Your task to perform on an android device: Search for sushi restaurants on Maps Image 0: 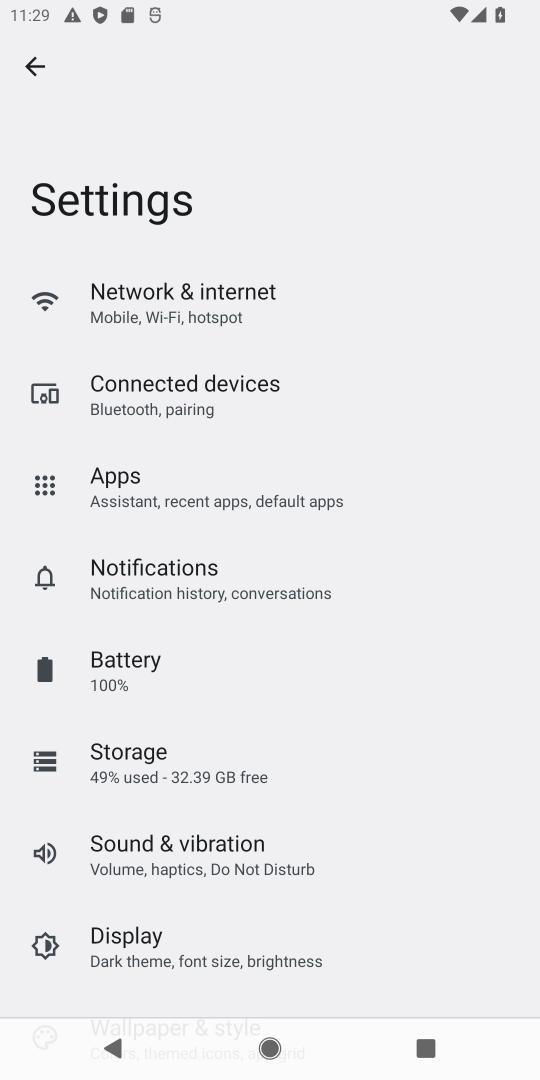
Step 0: press home button
Your task to perform on an android device: Search for sushi restaurants on Maps Image 1: 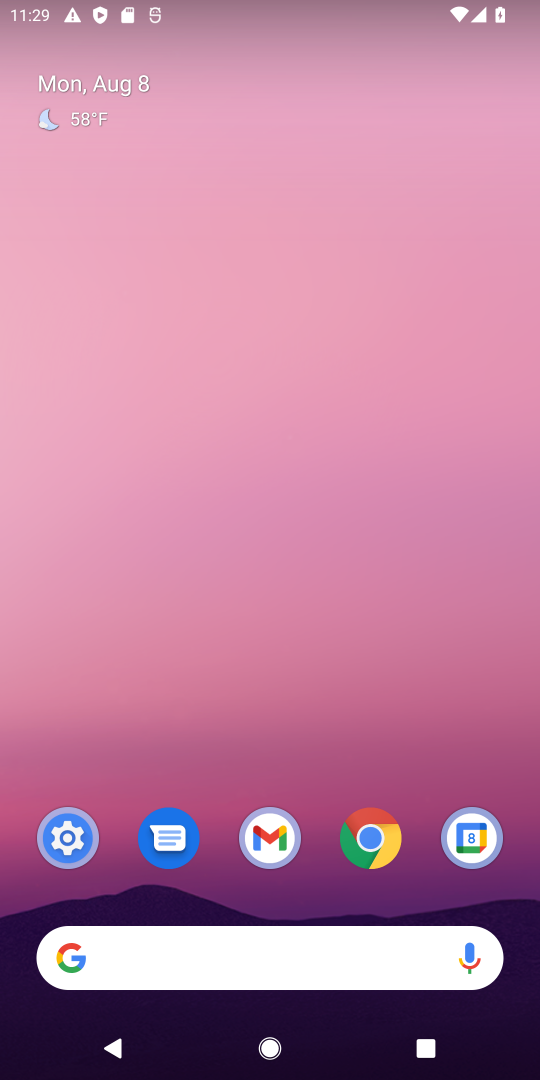
Step 1: drag from (325, 546) to (312, 18)
Your task to perform on an android device: Search for sushi restaurants on Maps Image 2: 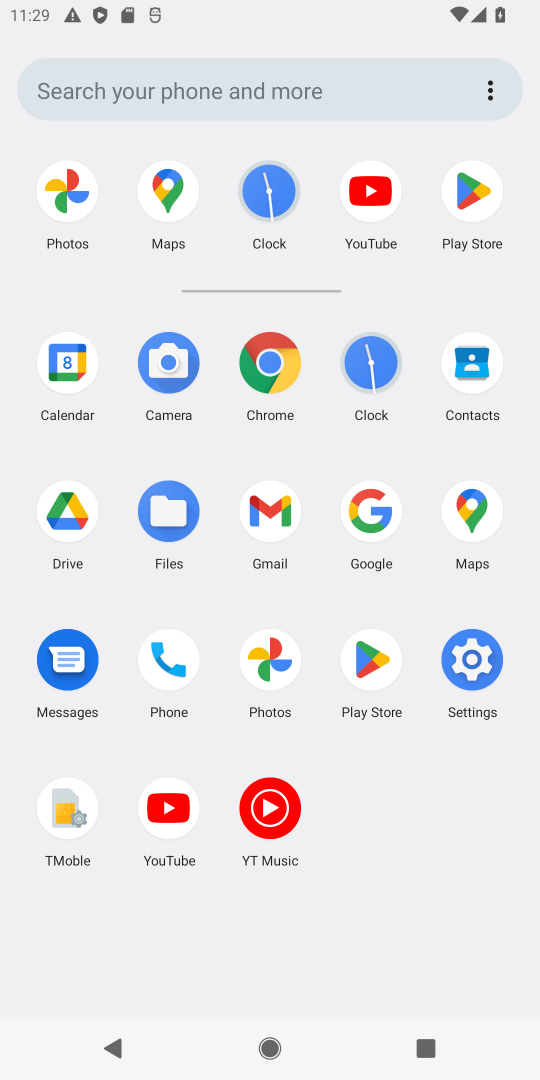
Step 2: click (474, 497)
Your task to perform on an android device: Search for sushi restaurants on Maps Image 3: 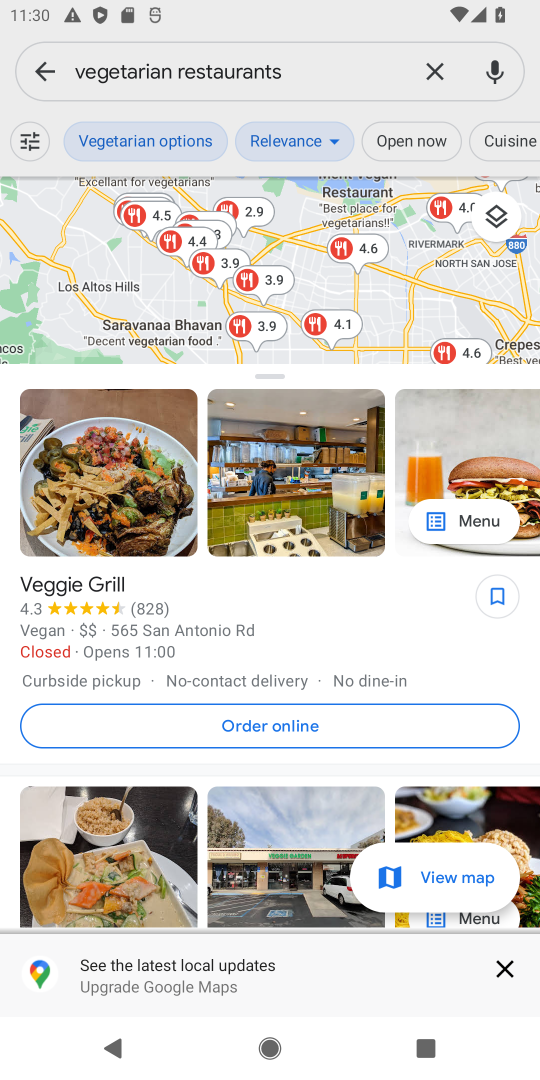
Step 3: click (434, 72)
Your task to perform on an android device: Search for sushi restaurants on Maps Image 4: 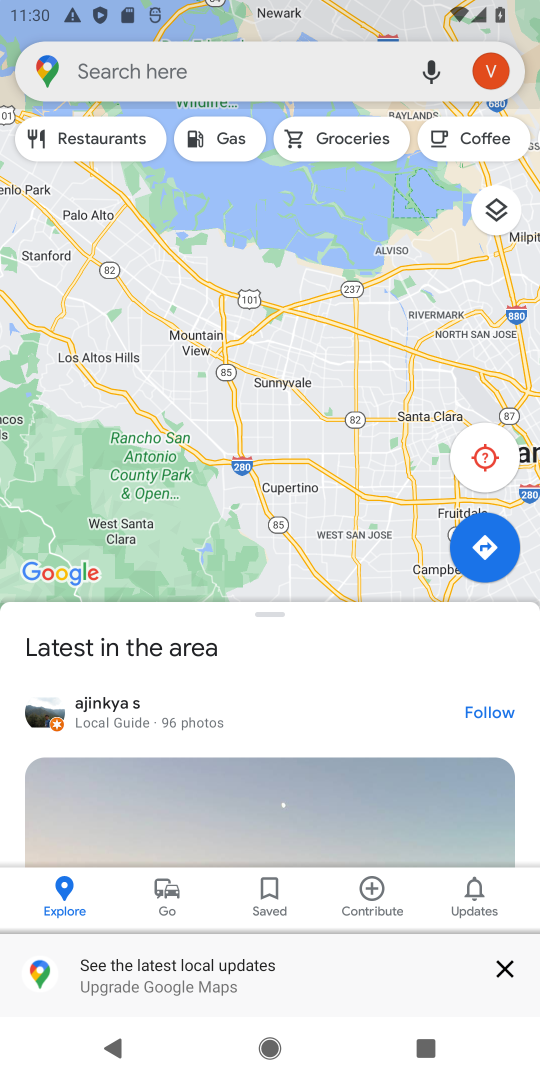
Step 4: click (158, 59)
Your task to perform on an android device: Search for sushi restaurants on Maps Image 5: 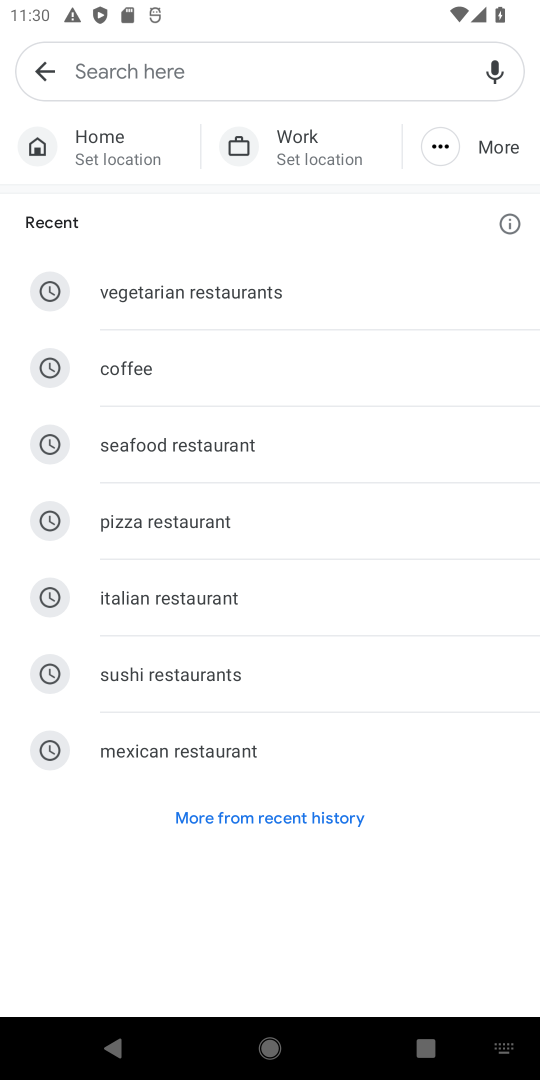
Step 5: click (155, 671)
Your task to perform on an android device: Search for sushi restaurants on Maps Image 6: 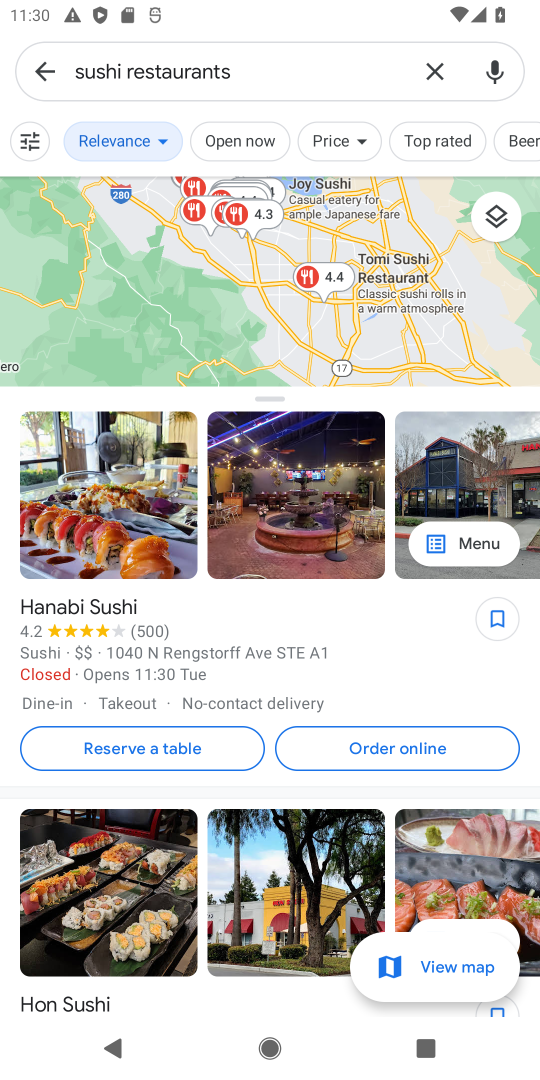
Step 6: task complete